Your task to perform on an android device: Search for "razer naga" on amazon.com, select the first entry, and add it to the cart. Image 0: 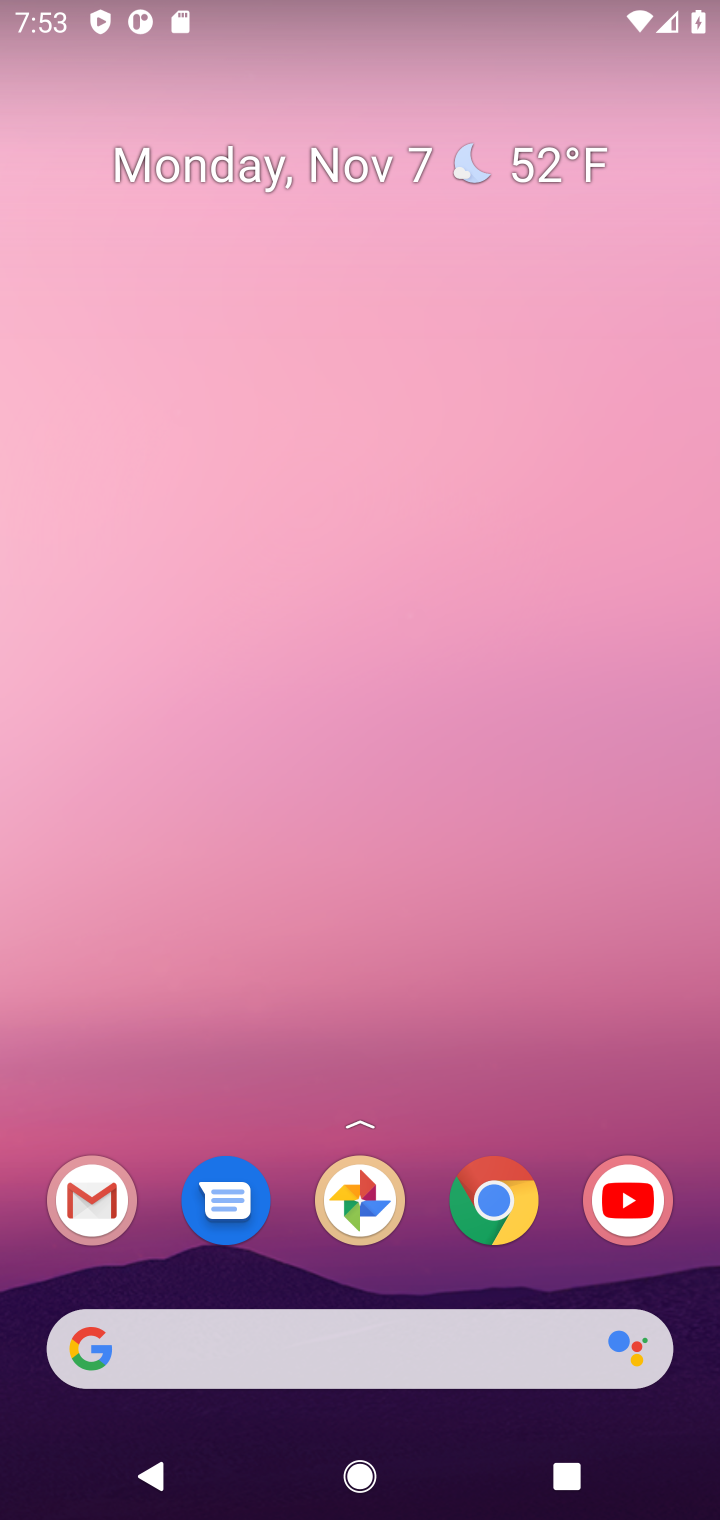
Step 0: click (511, 1209)
Your task to perform on an android device: Search for "razer naga" on amazon.com, select the first entry, and add it to the cart. Image 1: 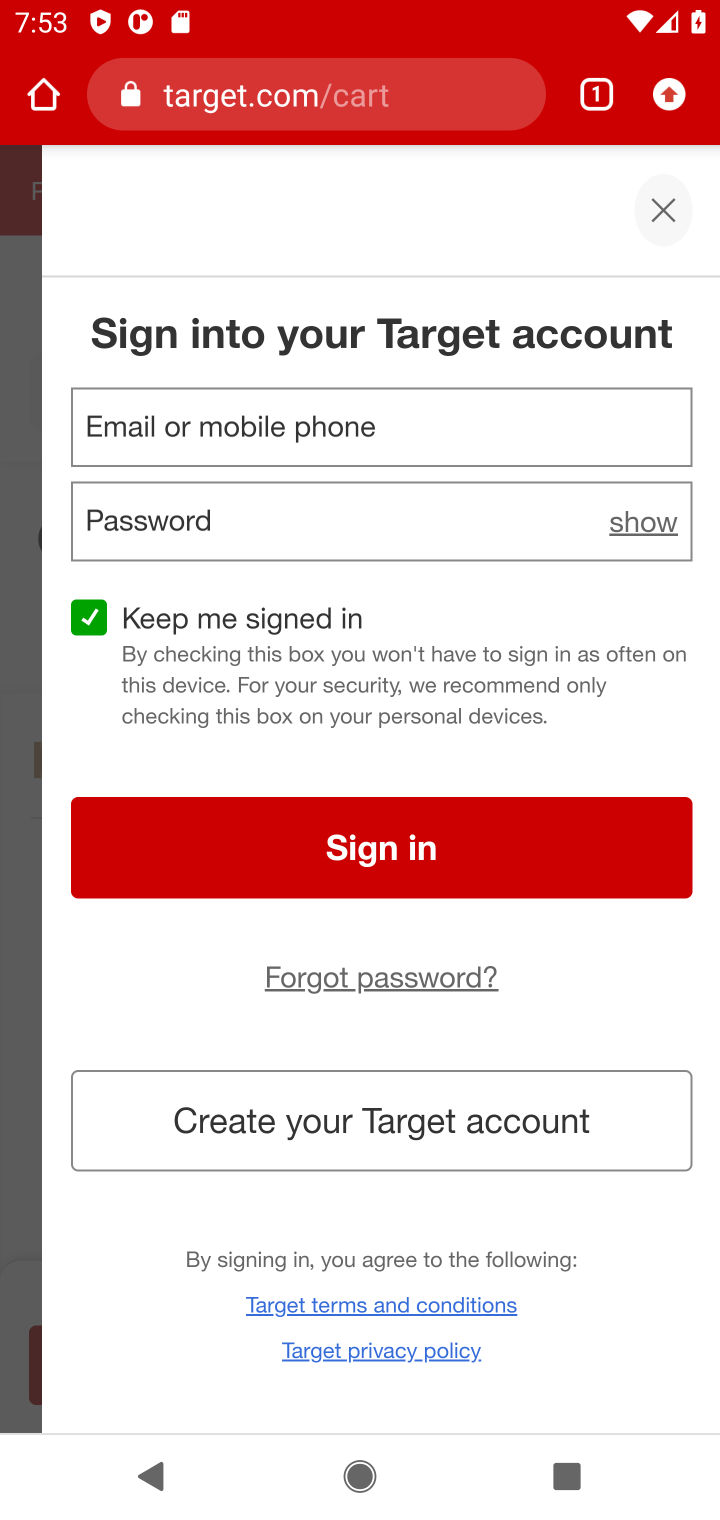
Step 1: click (315, 119)
Your task to perform on an android device: Search for "razer naga" on amazon.com, select the first entry, and add it to the cart. Image 2: 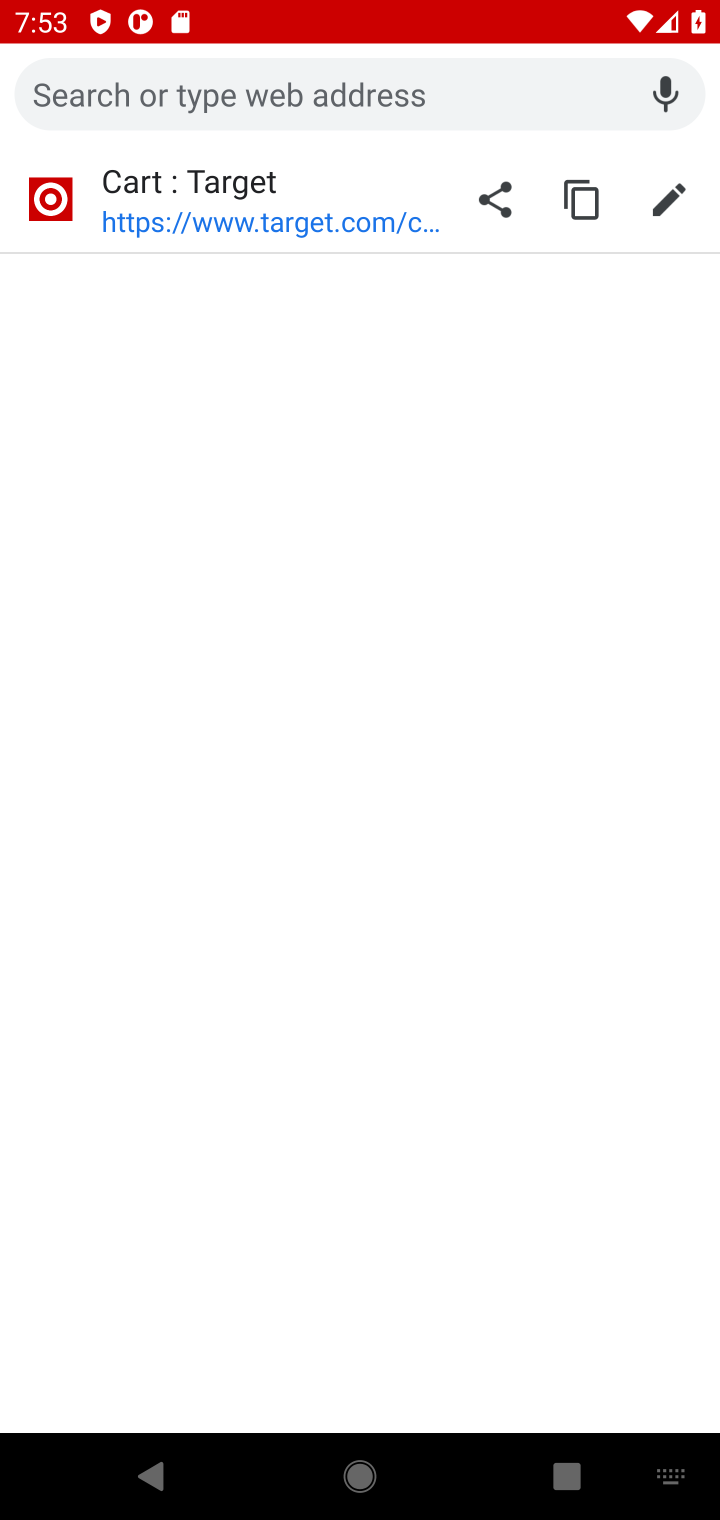
Step 2: type "amazon.com"
Your task to perform on an android device: Search for "razer naga" on amazon.com, select the first entry, and add it to the cart. Image 3: 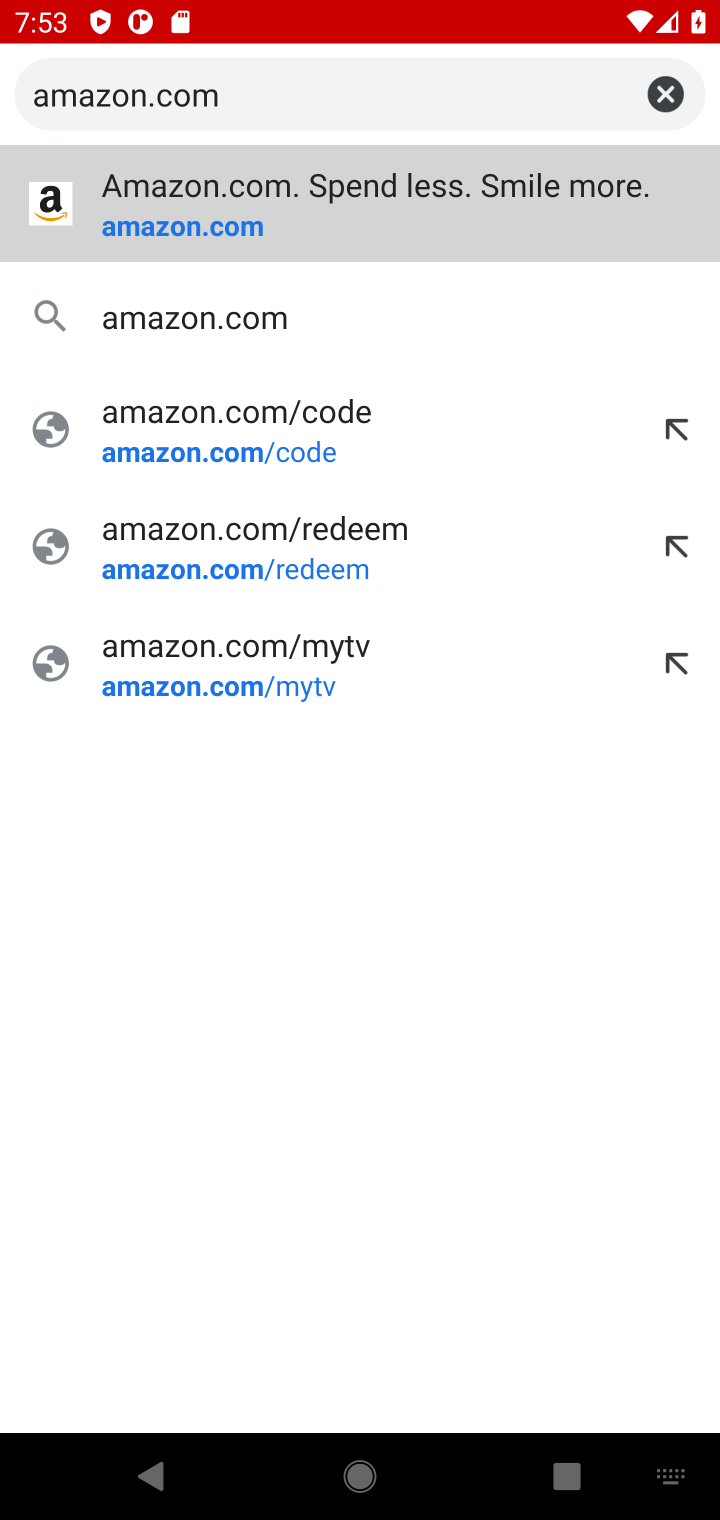
Step 3: press enter
Your task to perform on an android device: Search for "razer naga" on amazon.com, select the first entry, and add it to the cart. Image 4: 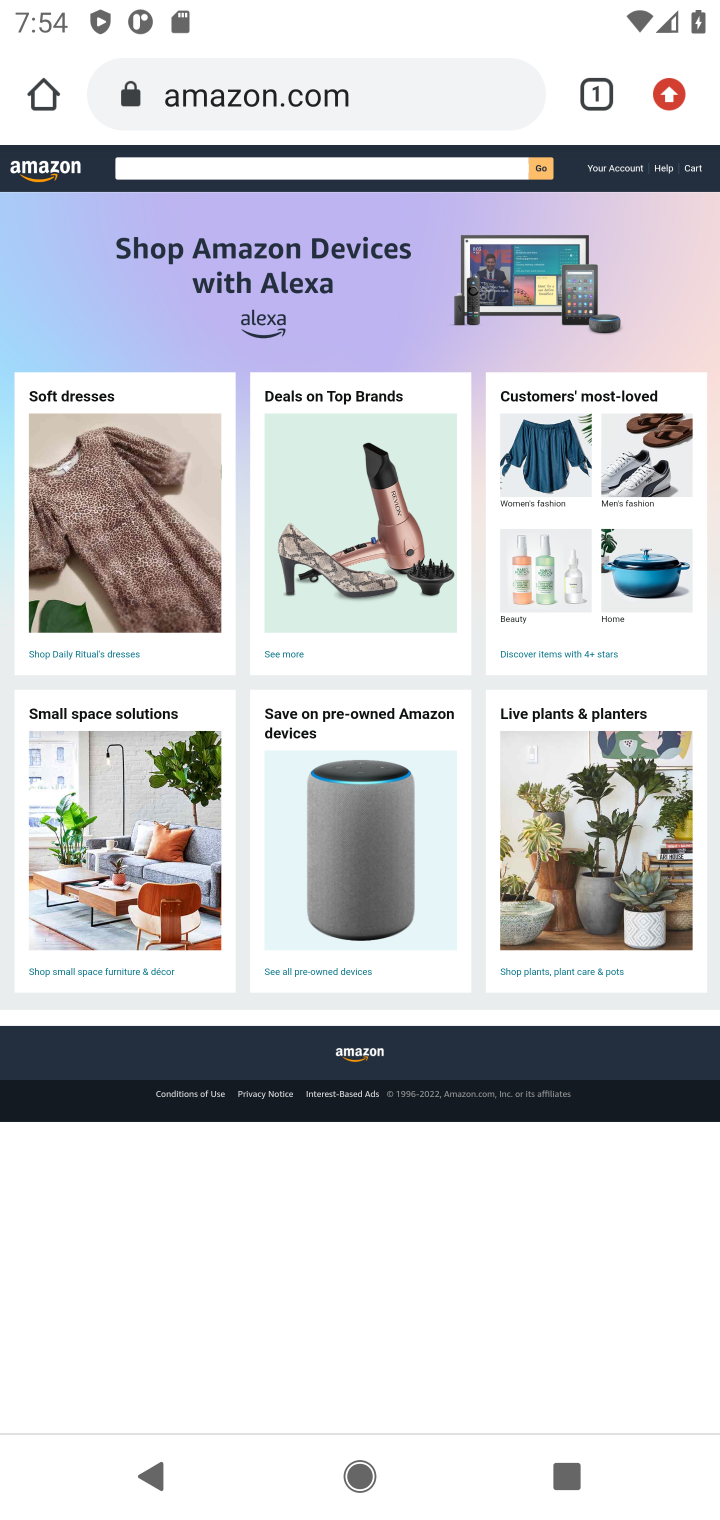
Step 4: drag from (236, 653) to (203, 1078)
Your task to perform on an android device: Search for "razer naga" on amazon.com, select the first entry, and add it to the cart. Image 5: 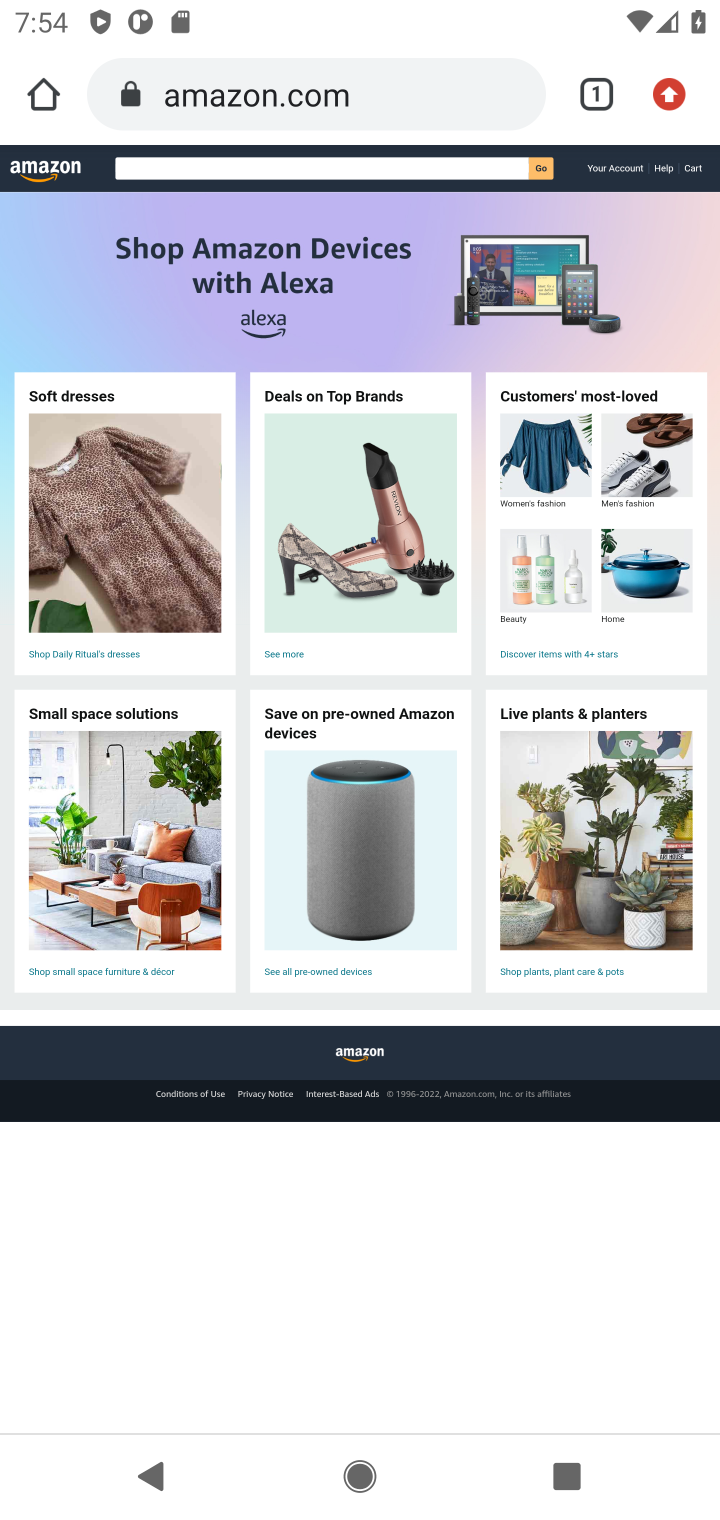
Step 5: click (181, 179)
Your task to perform on an android device: Search for "razer naga" on amazon.com, select the first entry, and add it to the cart. Image 6: 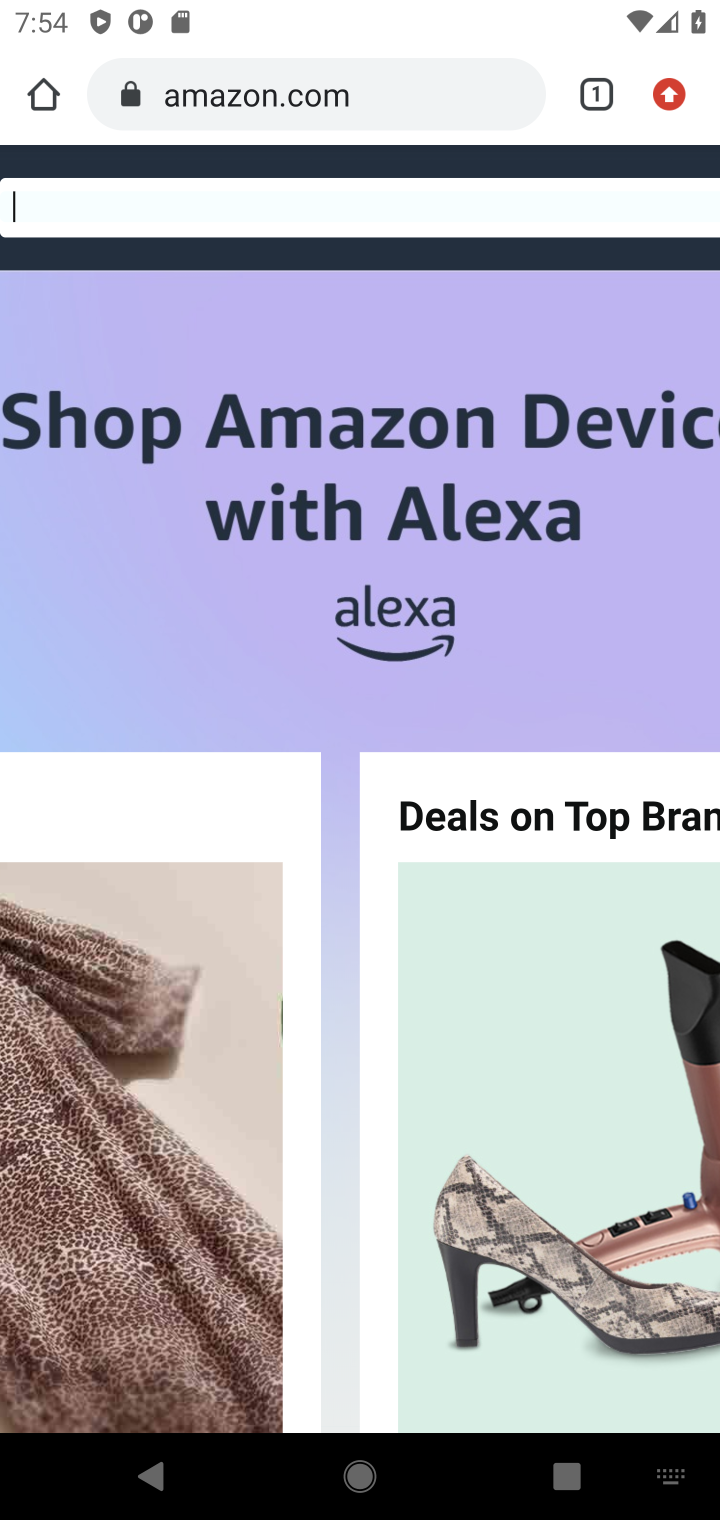
Step 6: type "razer naga"
Your task to perform on an android device: Search for "razer naga" on amazon.com, select the first entry, and add it to the cart. Image 7: 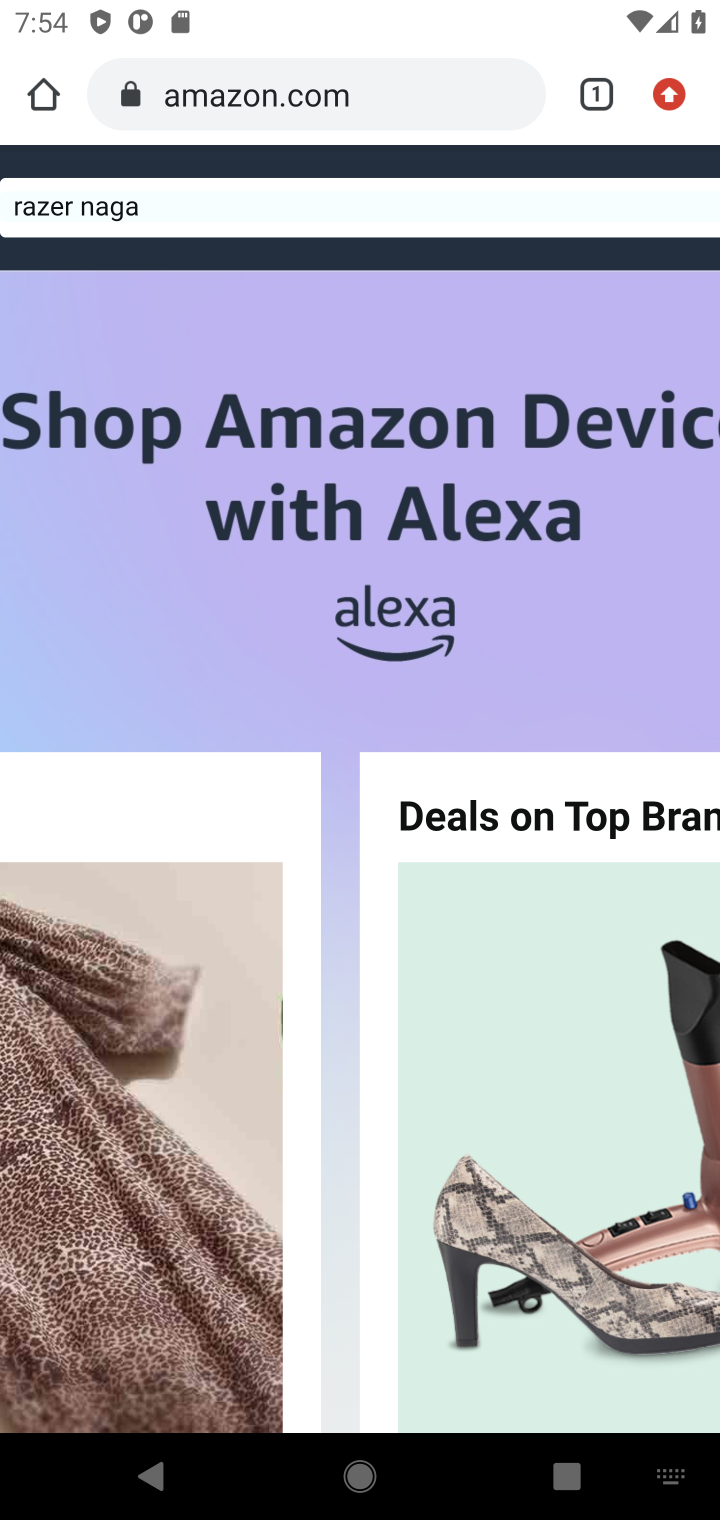
Step 7: press enter
Your task to perform on an android device: Search for "razer naga" on amazon.com, select the first entry, and add it to the cart. Image 8: 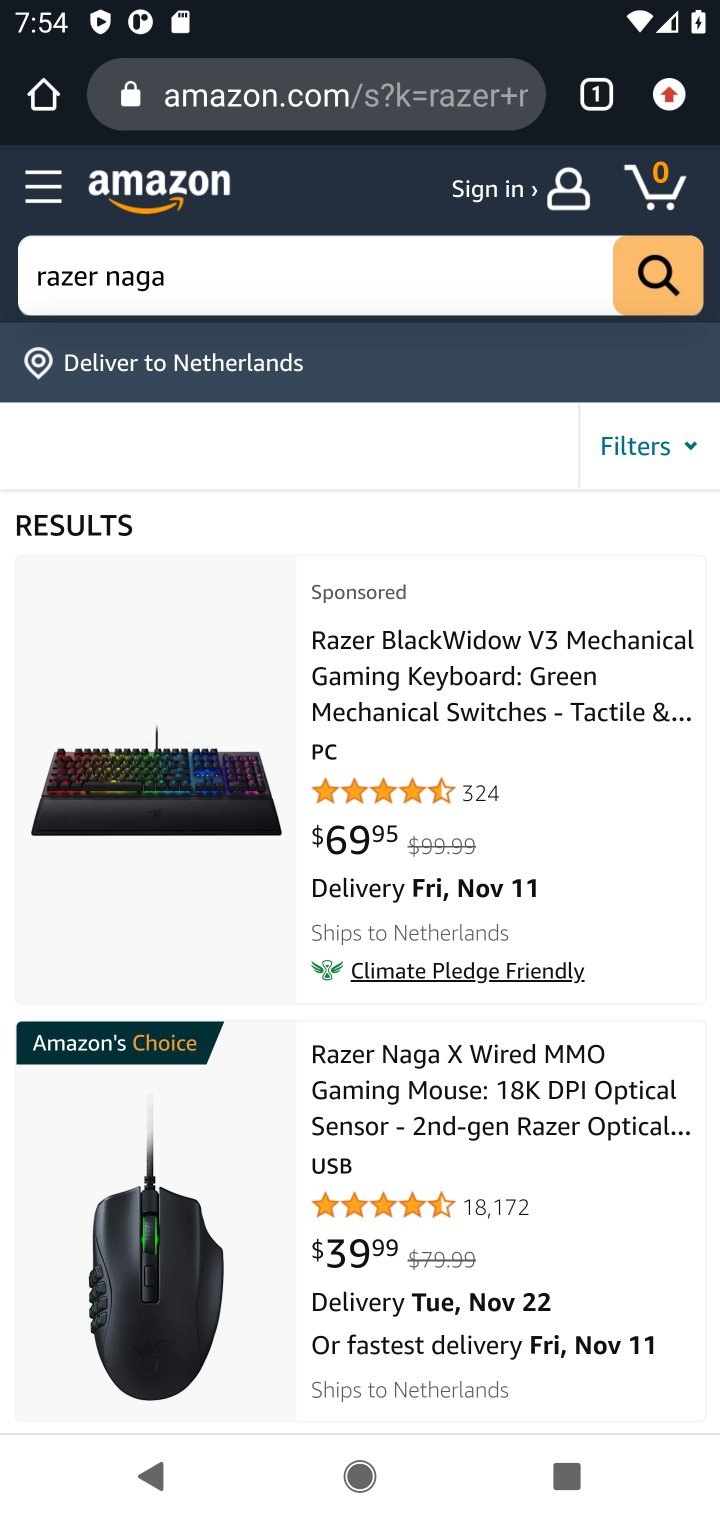
Step 8: click (461, 1088)
Your task to perform on an android device: Search for "razer naga" on amazon.com, select the first entry, and add it to the cart. Image 9: 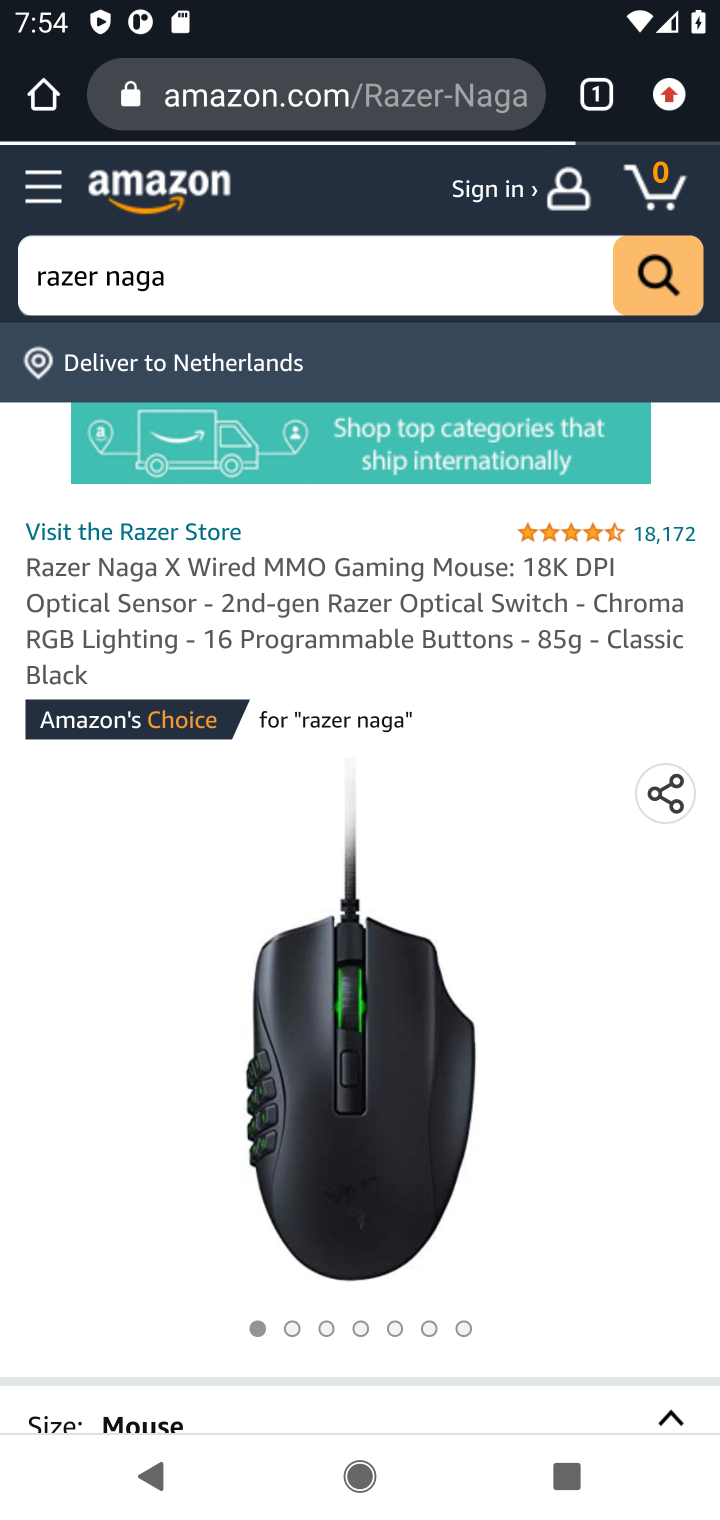
Step 9: drag from (495, 1252) to (441, 503)
Your task to perform on an android device: Search for "razer naga" on amazon.com, select the first entry, and add it to the cart. Image 10: 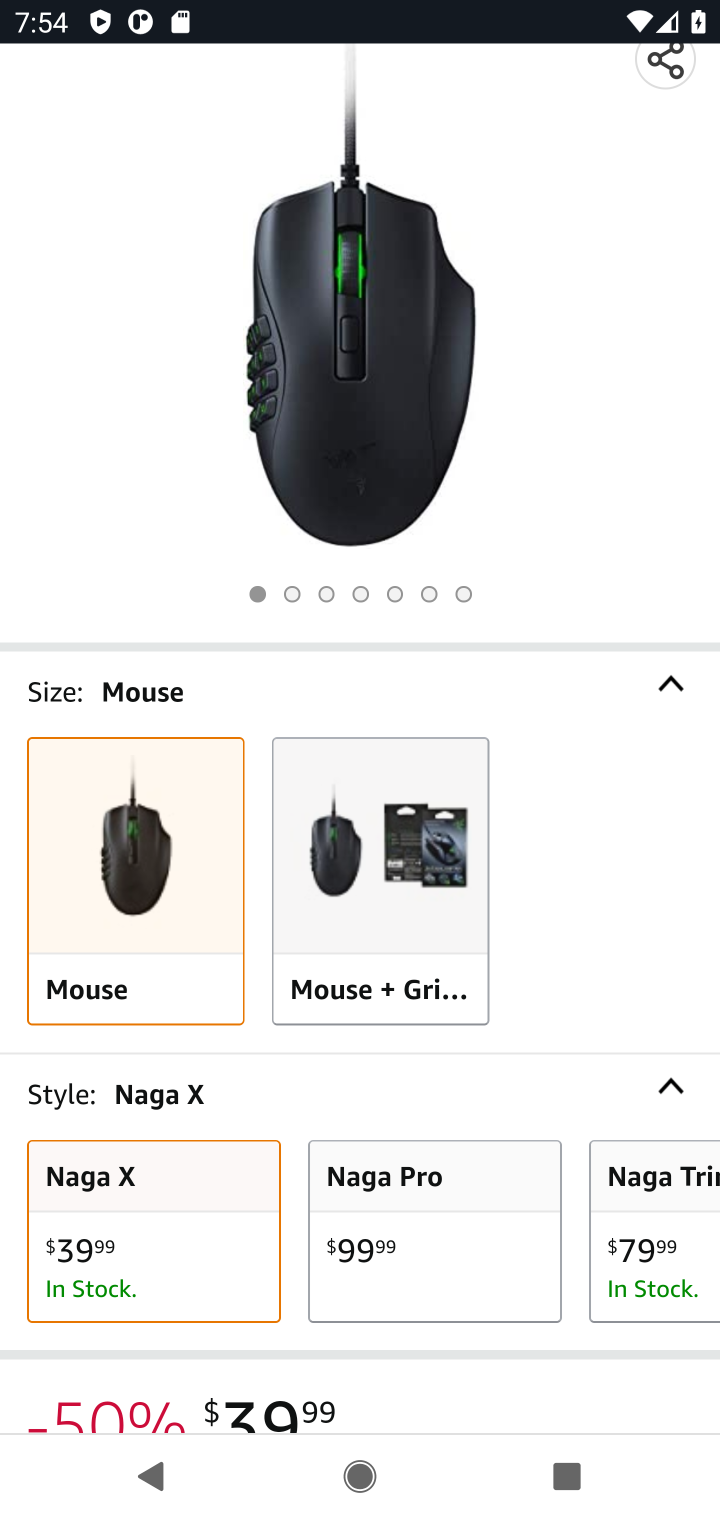
Step 10: drag from (579, 934) to (564, 340)
Your task to perform on an android device: Search for "razer naga" on amazon.com, select the first entry, and add it to the cart. Image 11: 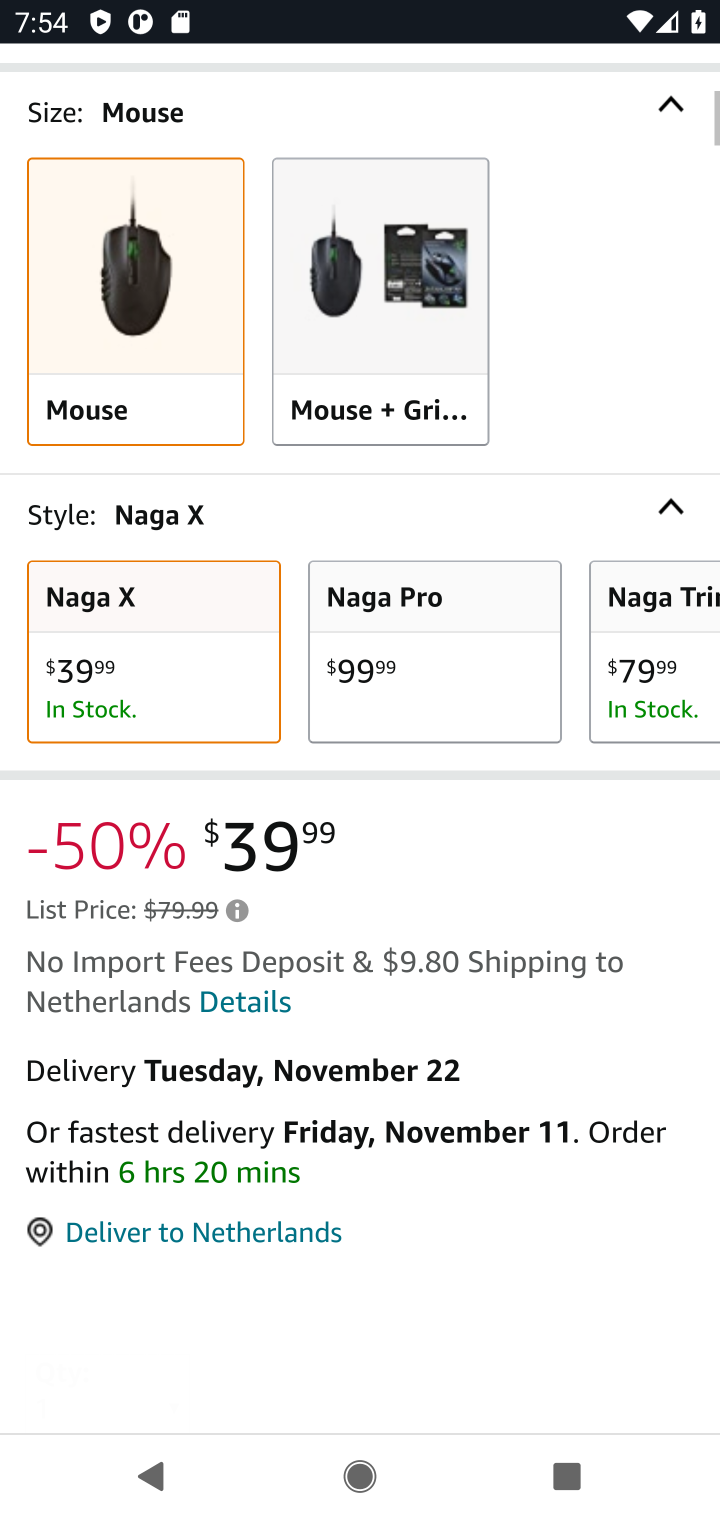
Step 11: drag from (517, 1076) to (581, 444)
Your task to perform on an android device: Search for "razer naga" on amazon.com, select the first entry, and add it to the cart. Image 12: 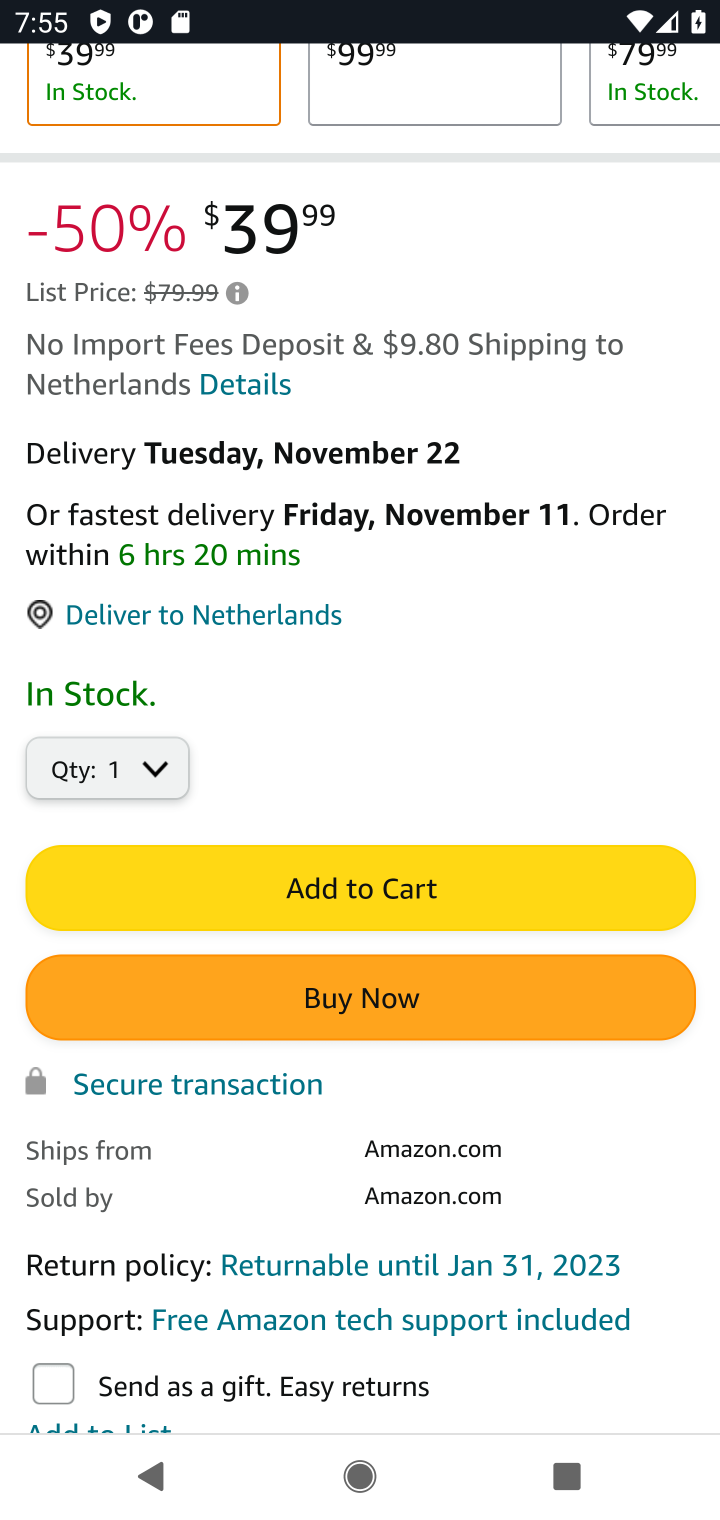
Step 12: click (482, 903)
Your task to perform on an android device: Search for "razer naga" on amazon.com, select the first entry, and add it to the cart. Image 13: 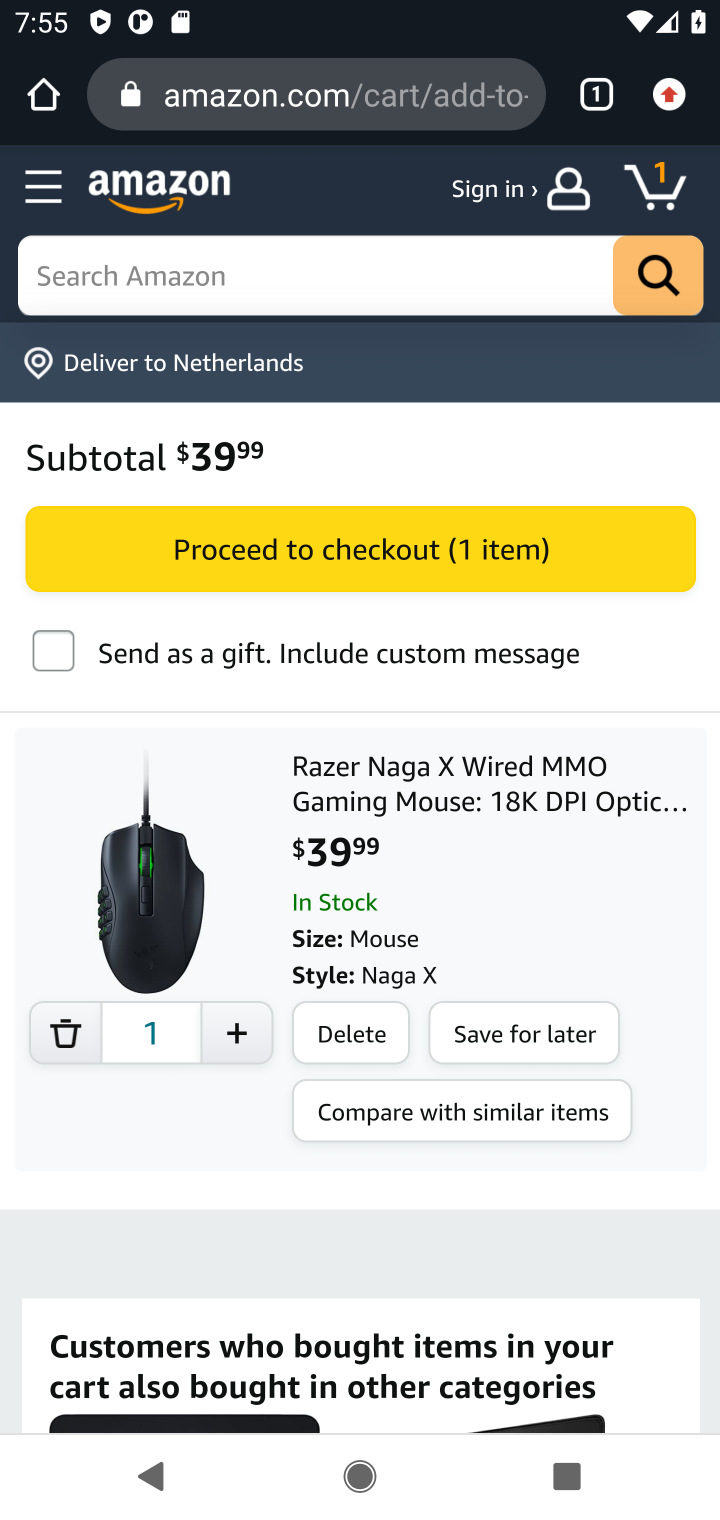
Step 13: click (406, 547)
Your task to perform on an android device: Search for "razer naga" on amazon.com, select the first entry, and add it to the cart. Image 14: 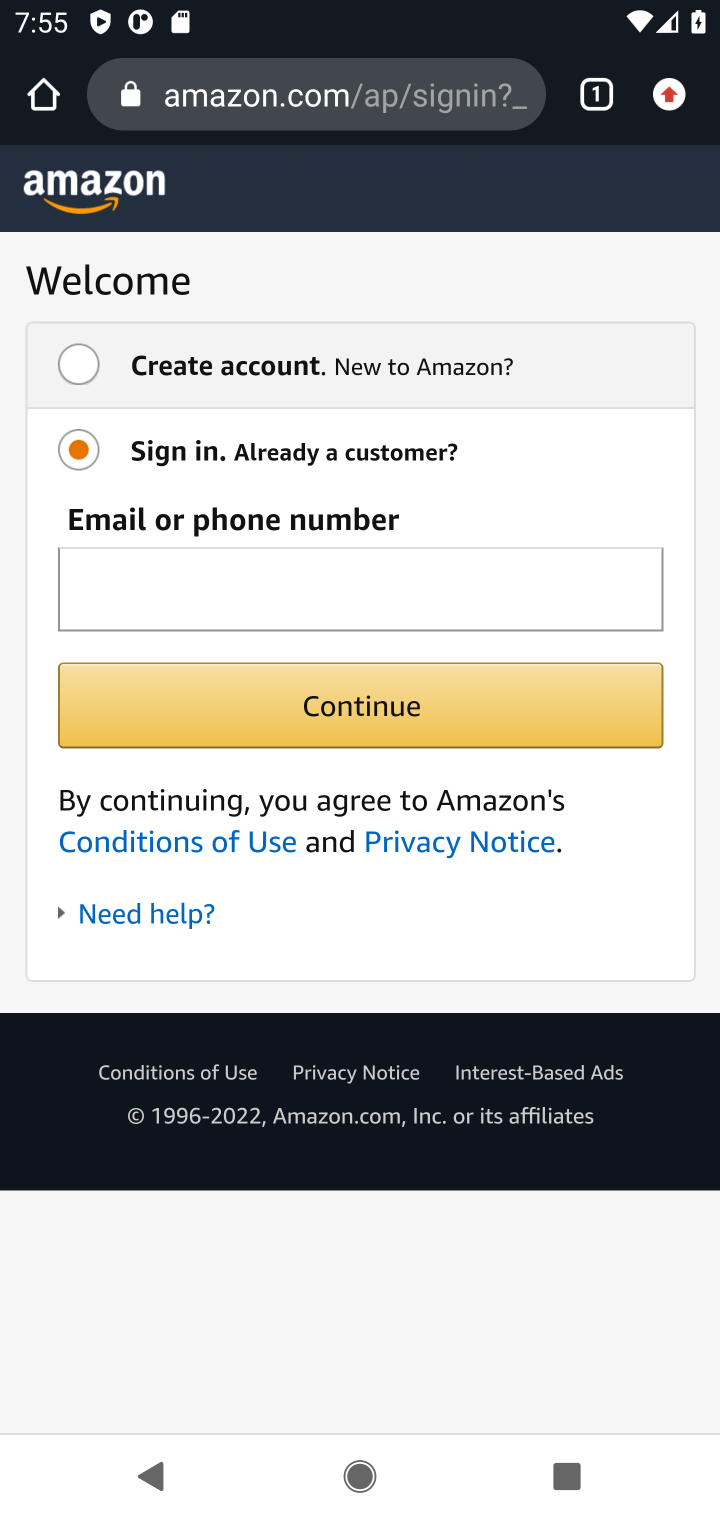
Step 14: task complete